Your task to perform on an android device: turn notification dots off Image 0: 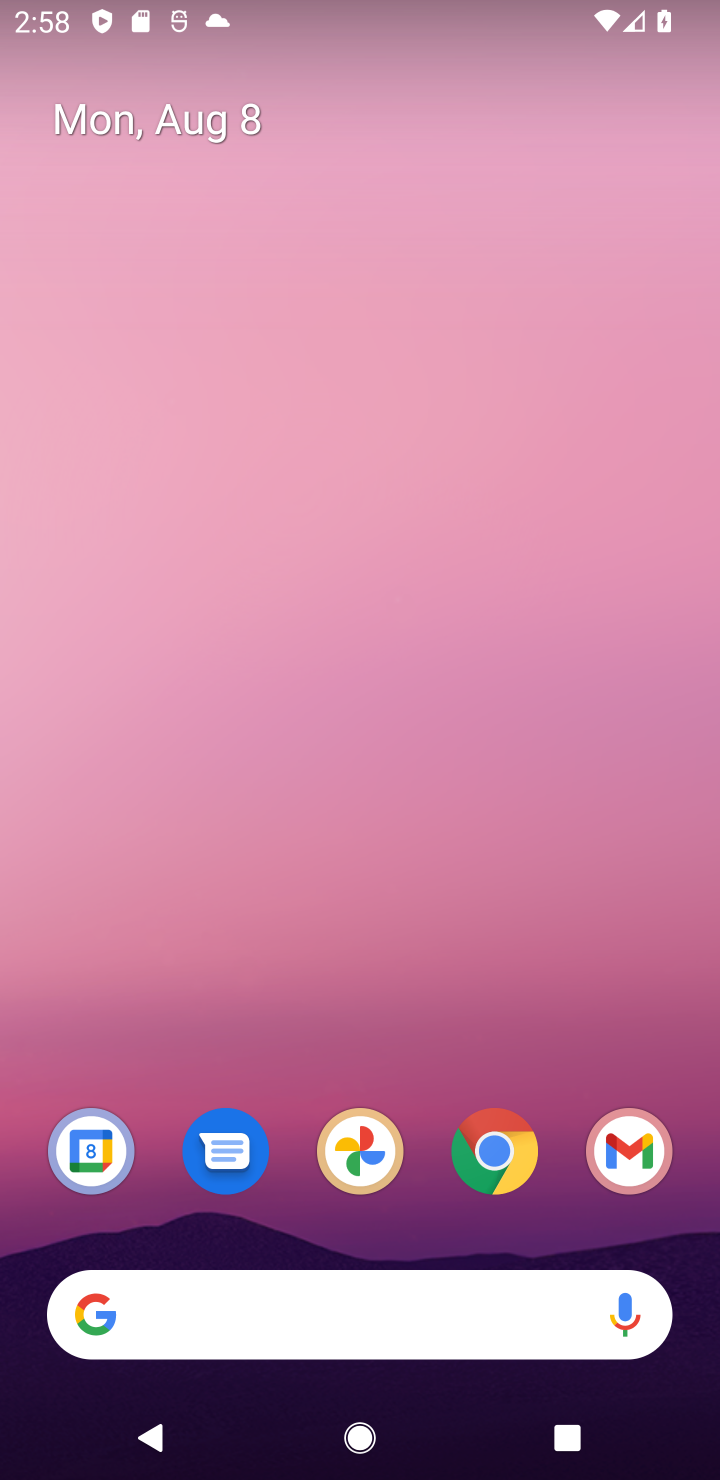
Step 0: drag from (346, 1000) to (329, 144)
Your task to perform on an android device: turn notification dots off Image 1: 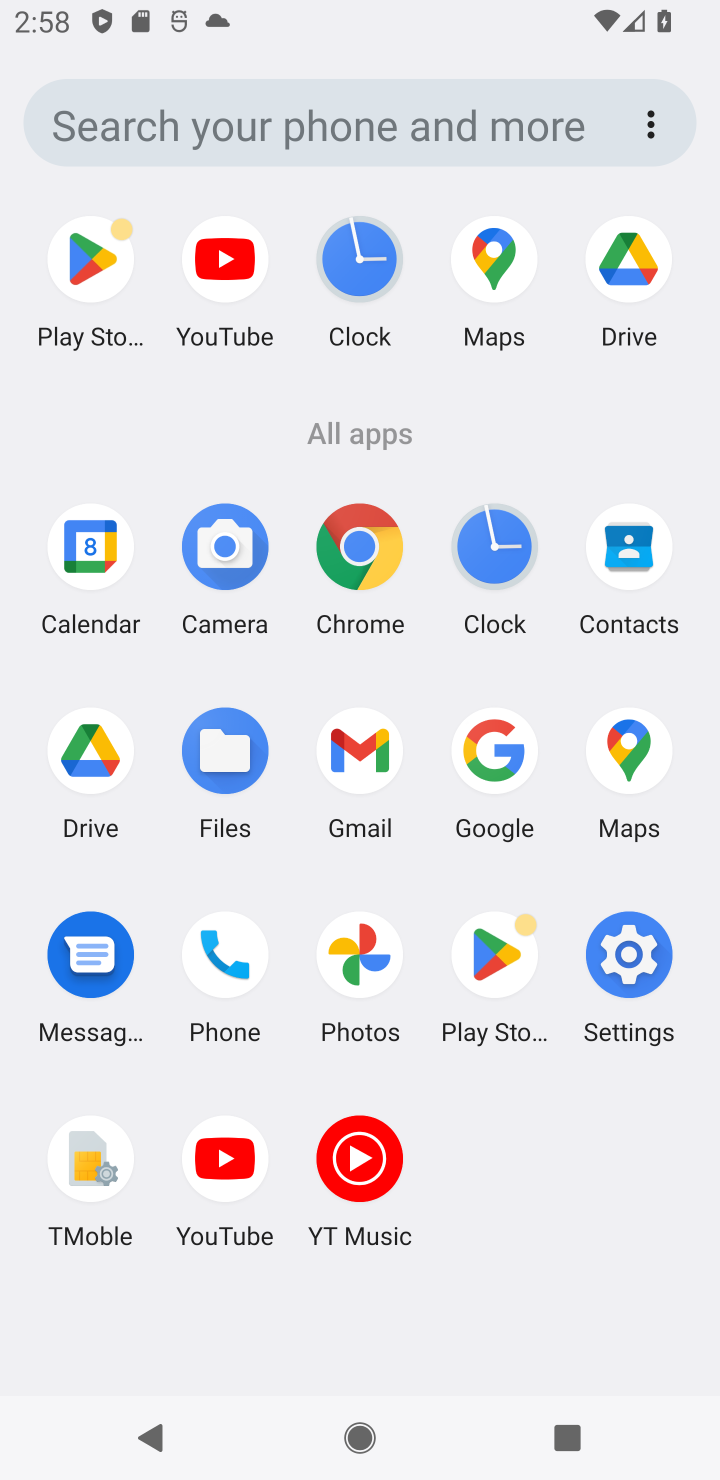
Step 1: click (634, 981)
Your task to perform on an android device: turn notification dots off Image 2: 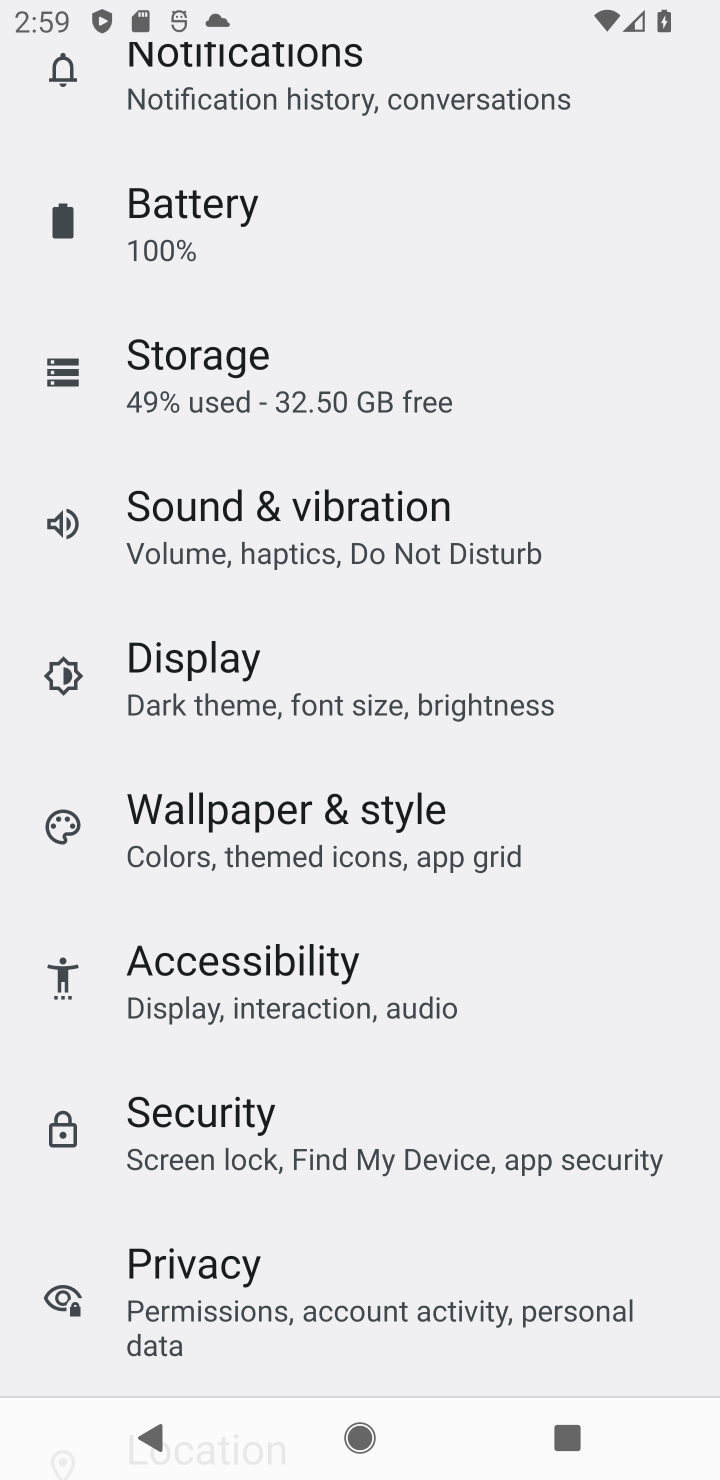
Step 2: click (277, 125)
Your task to perform on an android device: turn notification dots off Image 3: 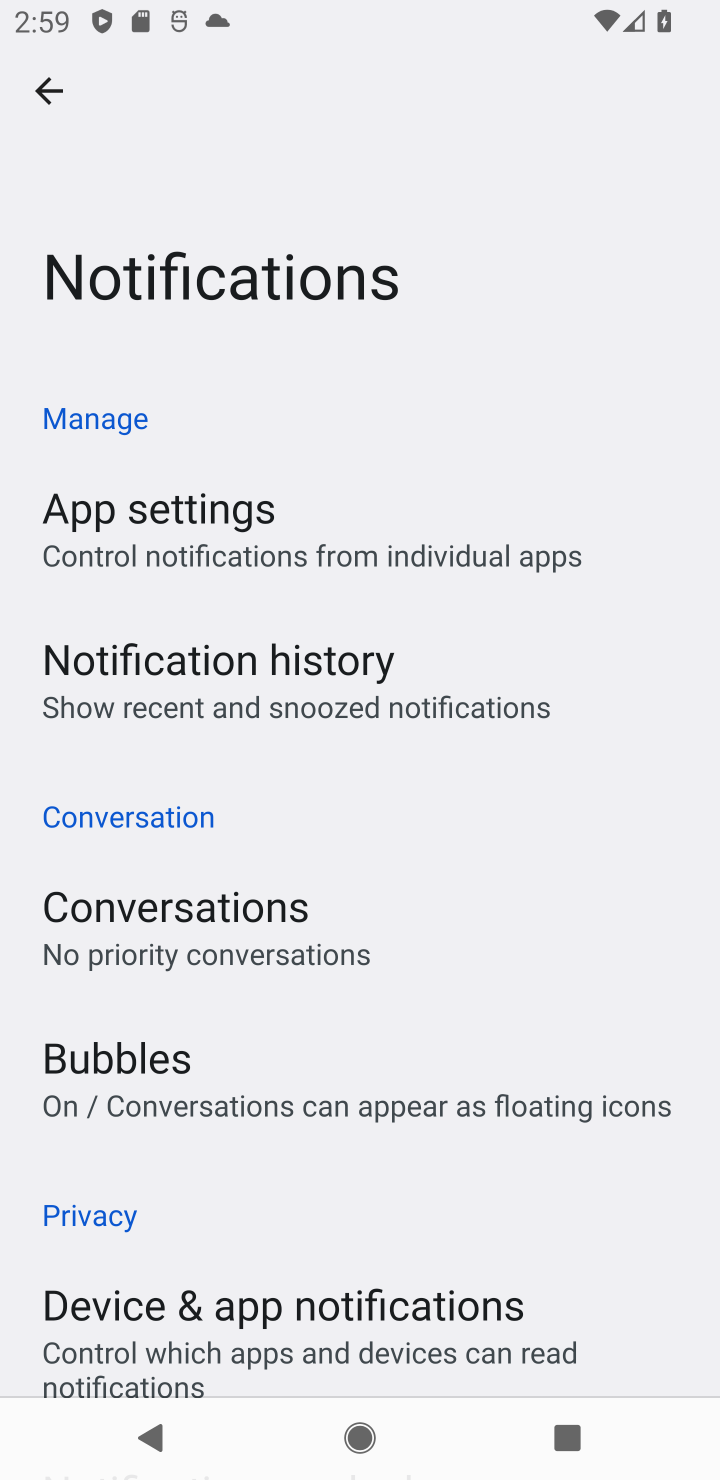
Step 3: drag from (376, 1151) to (452, 335)
Your task to perform on an android device: turn notification dots off Image 4: 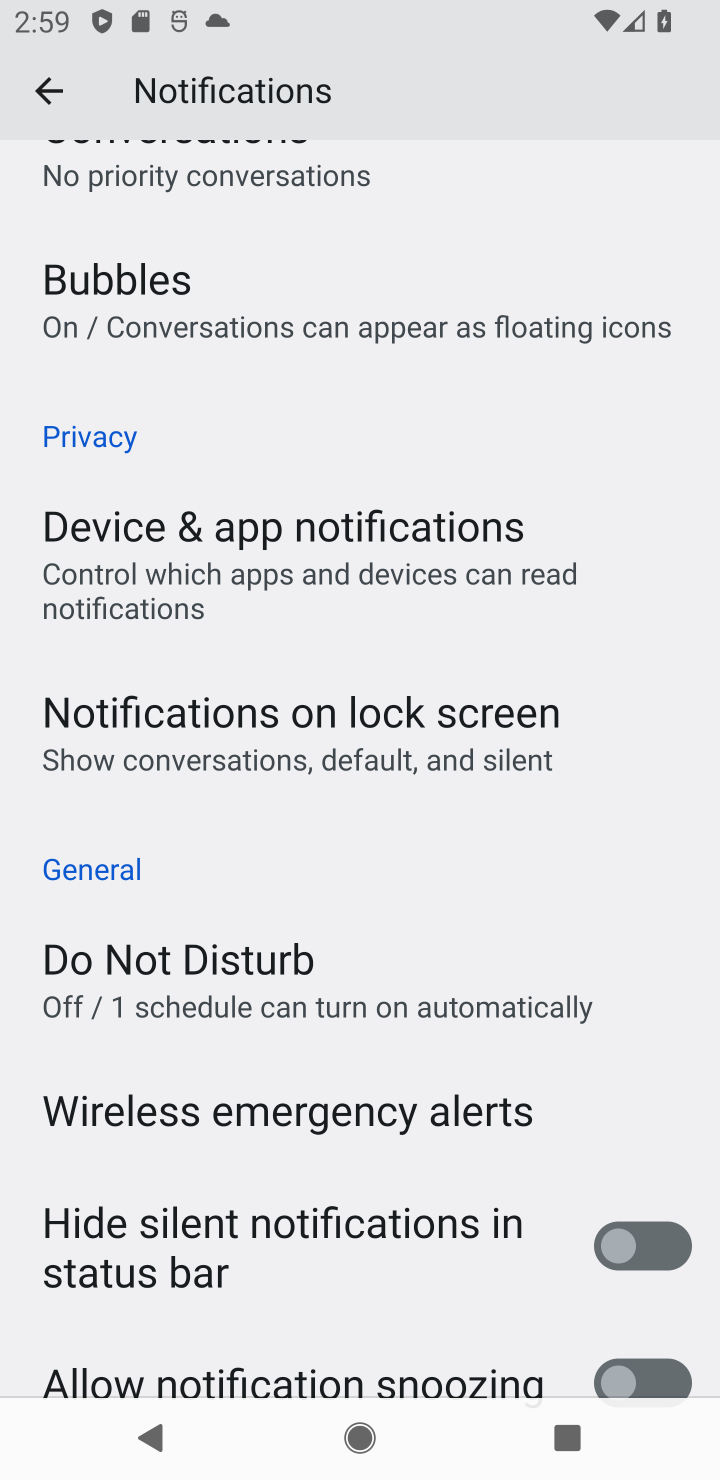
Step 4: drag from (422, 1205) to (496, 639)
Your task to perform on an android device: turn notification dots off Image 5: 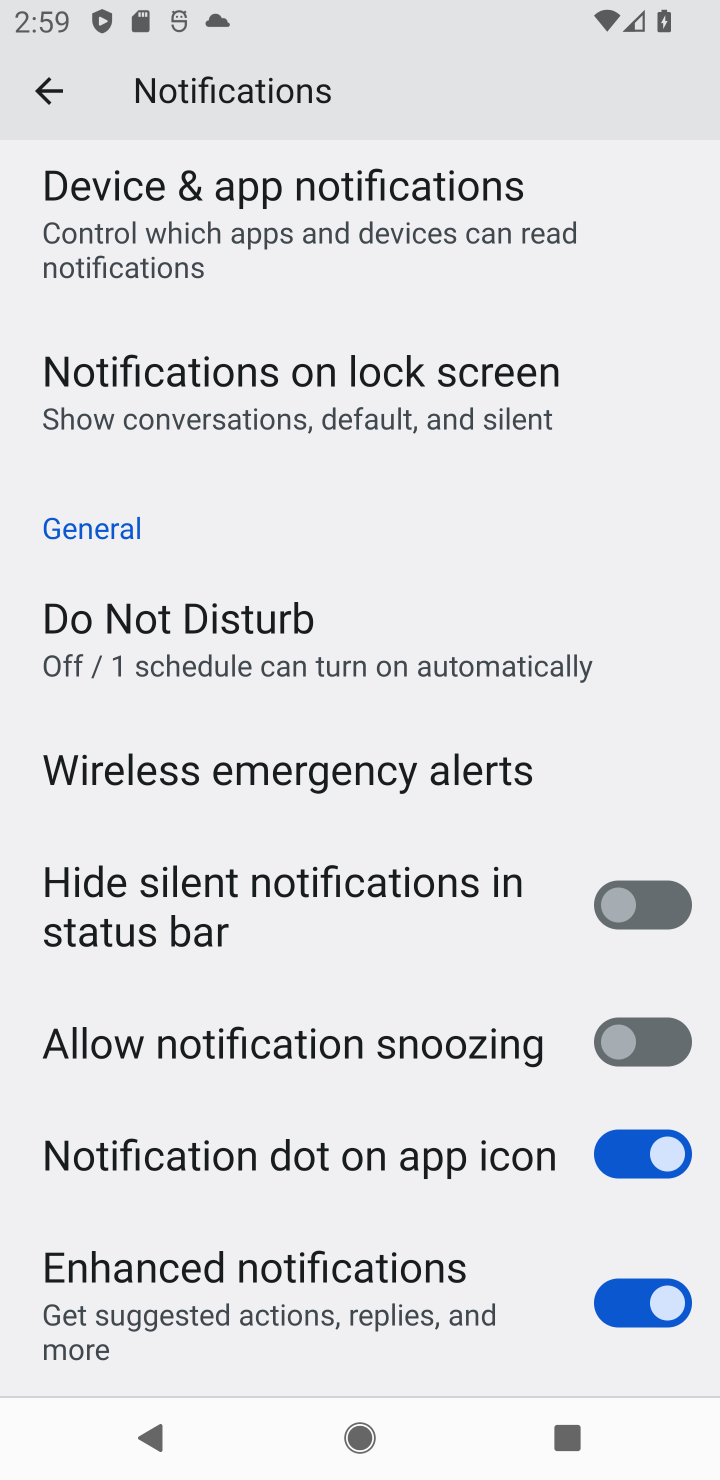
Step 5: drag from (505, 1195) to (489, 850)
Your task to perform on an android device: turn notification dots off Image 6: 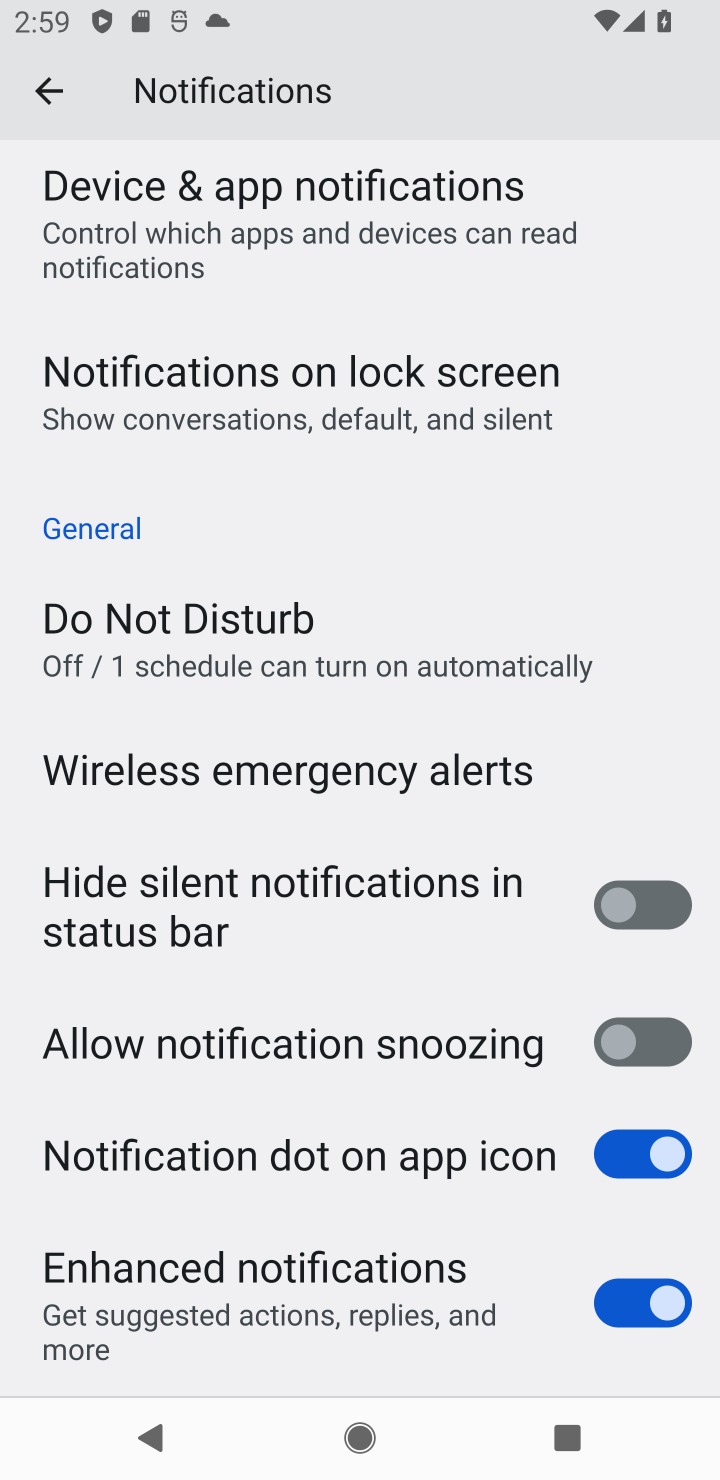
Step 6: click (603, 1165)
Your task to perform on an android device: turn notification dots off Image 7: 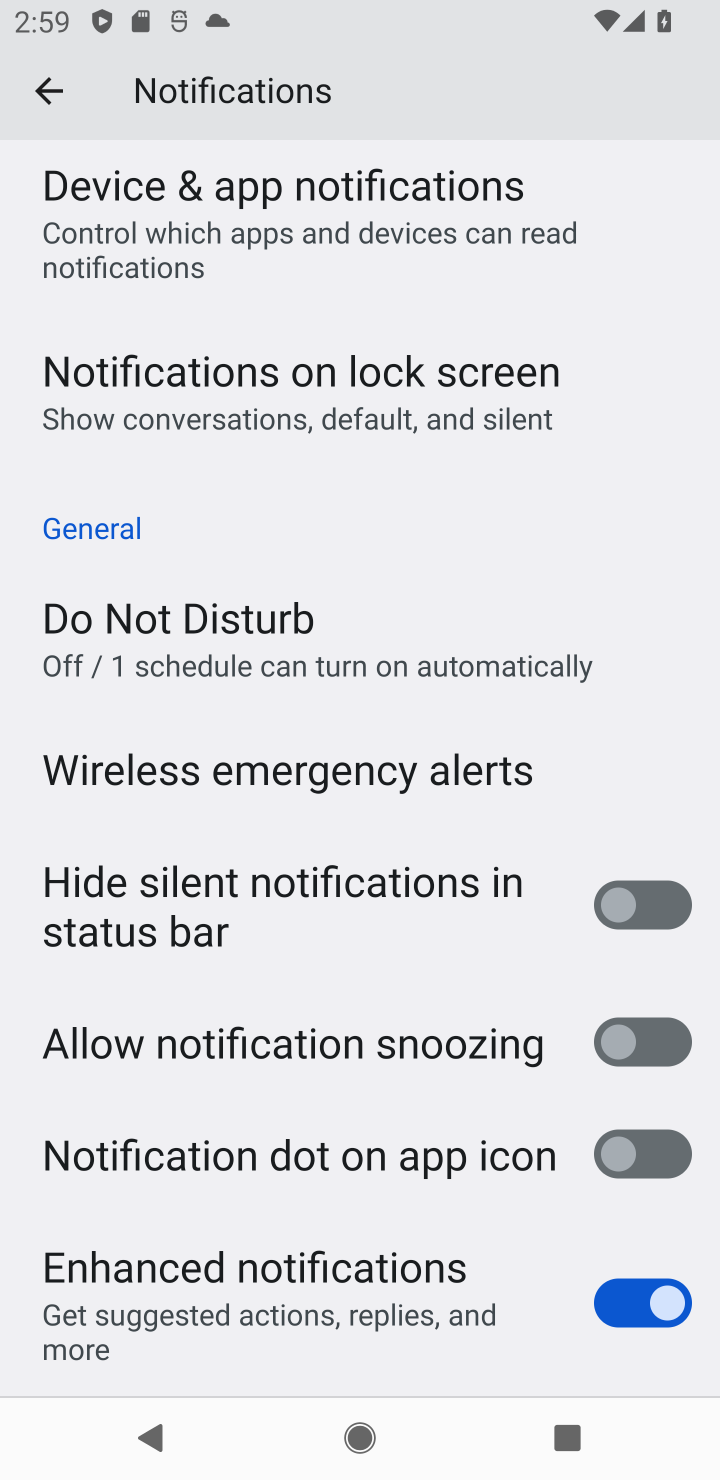
Step 7: task complete